Your task to perform on an android device: Open Youtube and go to "Your channel" Image 0: 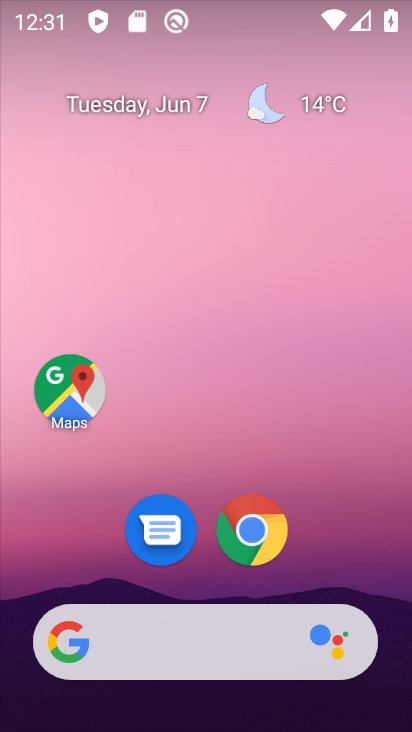
Step 0: drag from (318, 569) to (359, 203)
Your task to perform on an android device: Open Youtube and go to "Your channel" Image 1: 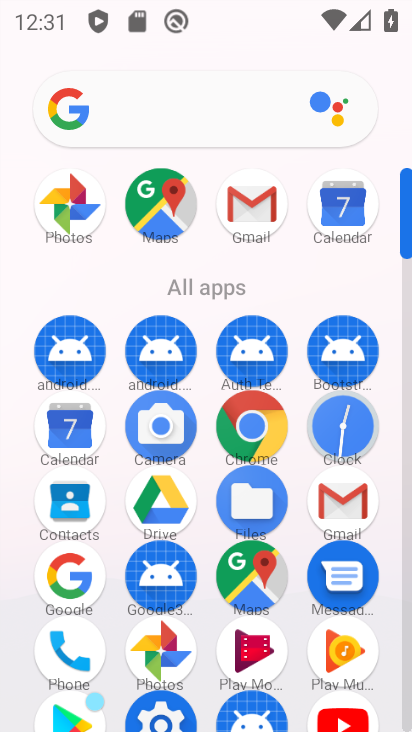
Step 1: drag from (286, 684) to (333, 308)
Your task to perform on an android device: Open Youtube and go to "Your channel" Image 2: 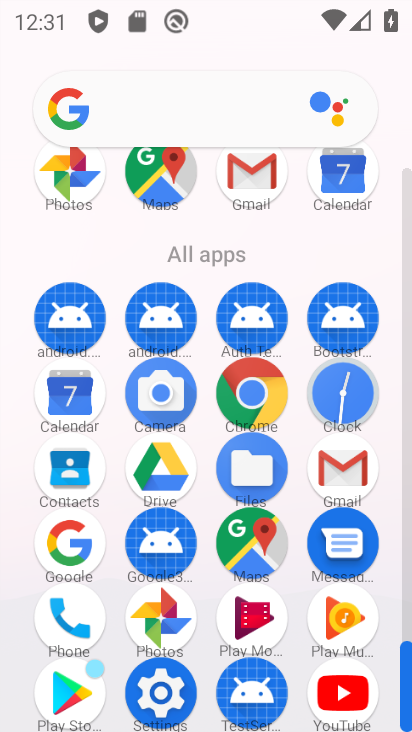
Step 2: click (340, 689)
Your task to perform on an android device: Open Youtube and go to "Your channel" Image 3: 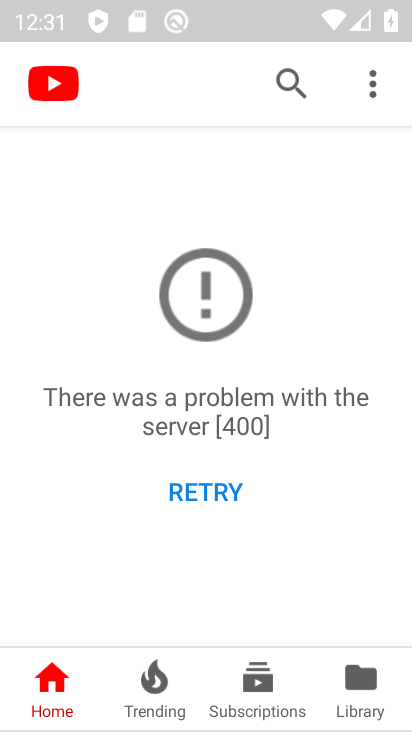
Step 3: click (281, 79)
Your task to perform on an android device: Open Youtube and go to "Your channel" Image 4: 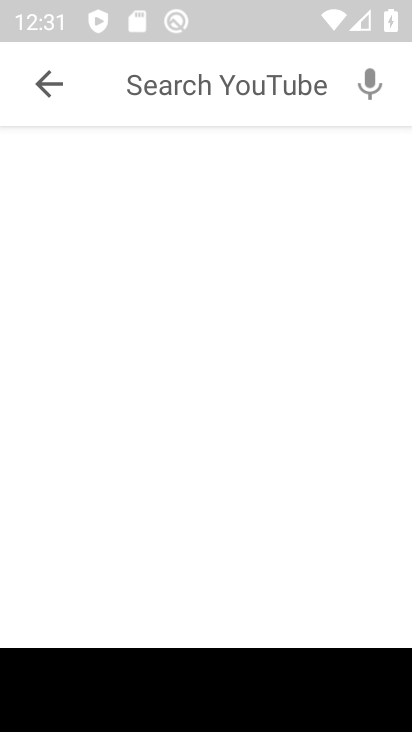
Step 4: type "india"
Your task to perform on an android device: Open Youtube and go to "Your channel" Image 5: 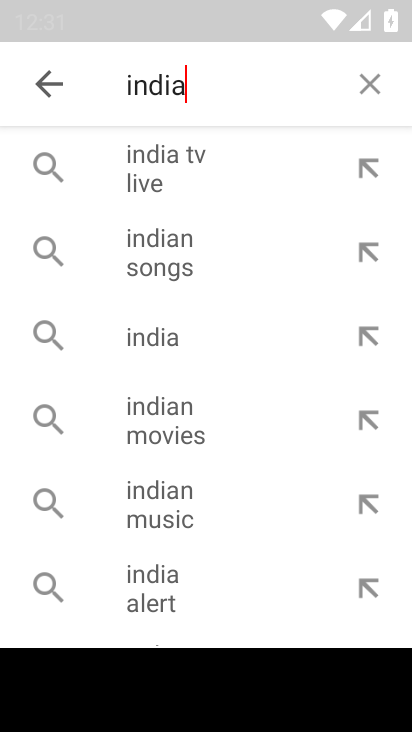
Step 5: click (182, 89)
Your task to perform on an android device: Open Youtube and go to "Your channel" Image 6: 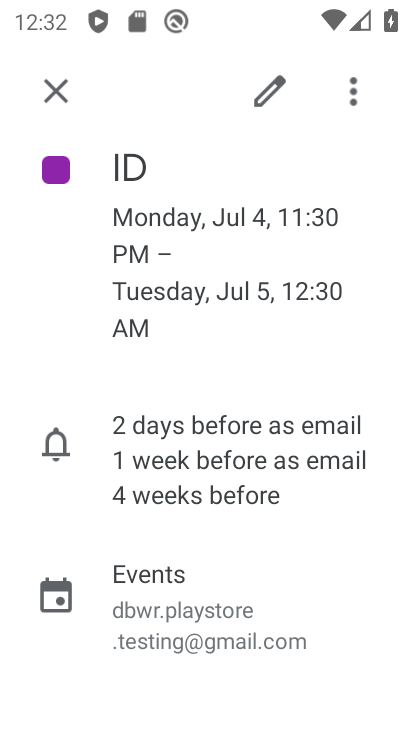
Step 6: click (60, 79)
Your task to perform on an android device: Open Youtube and go to "Your channel" Image 7: 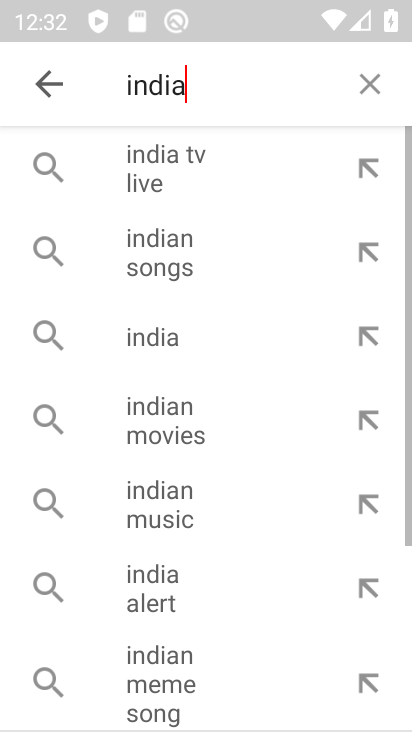
Step 7: click (198, 152)
Your task to perform on an android device: Open Youtube and go to "Your channel" Image 8: 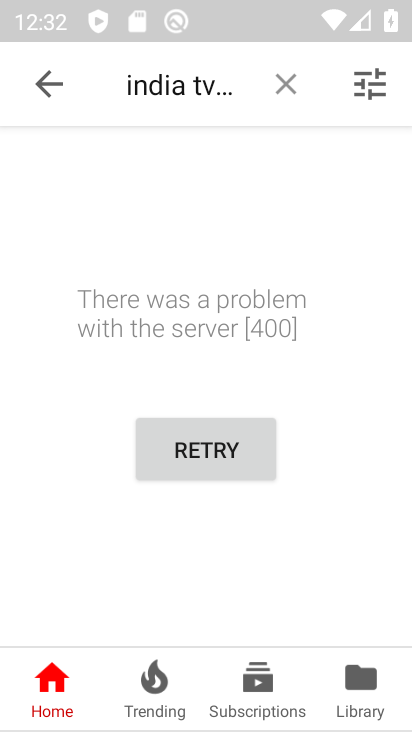
Step 8: task complete